Your task to perform on an android device: delete the emails in spam in the gmail app Image 0: 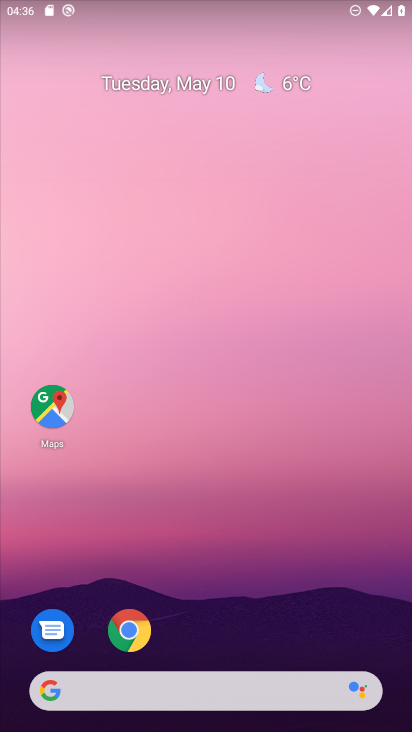
Step 0: drag from (228, 611) to (319, 14)
Your task to perform on an android device: delete the emails in spam in the gmail app Image 1: 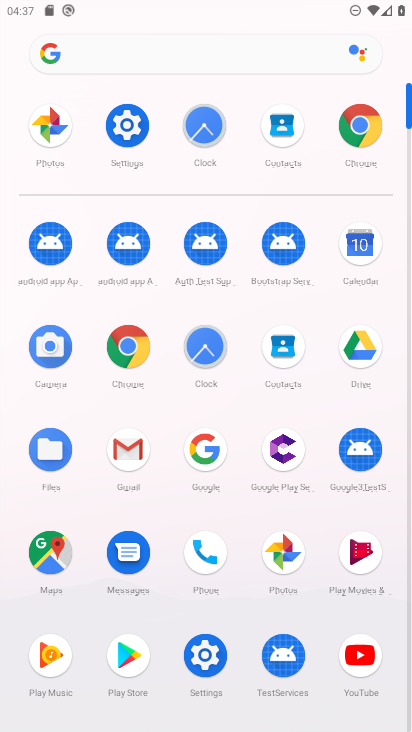
Step 1: click (117, 462)
Your task to perform on an android device: delete the emails in spam in the gmail app Image 2: 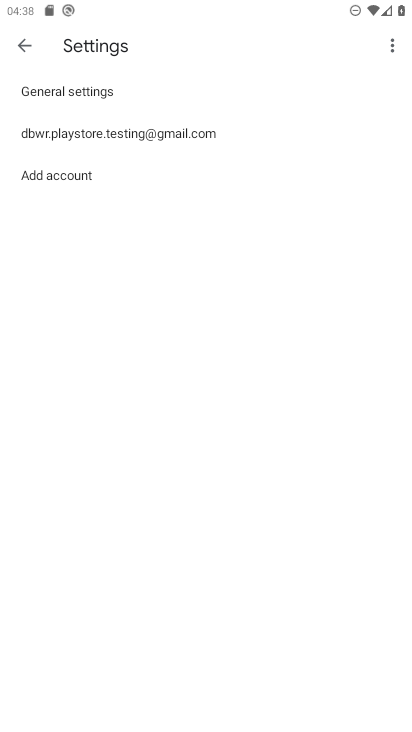
Step 2: click (16, 39)
Your task to perform on an android device: delete the emails in spam in the gmail app Image 3: 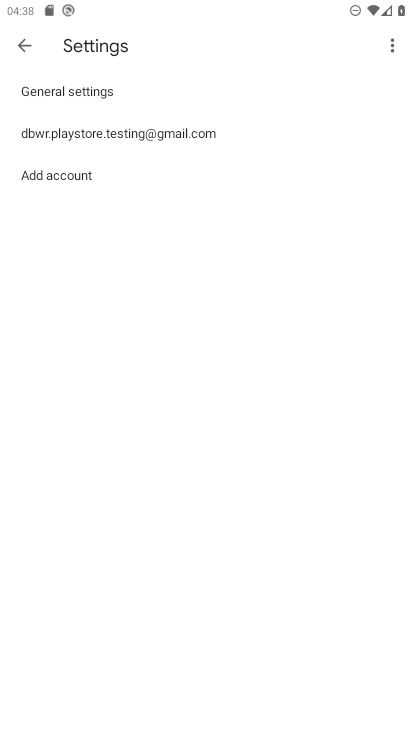
Step 3: click (50, 49)
Your task to perform on an android device: delete the emails in spam in the gmail app Image 4: 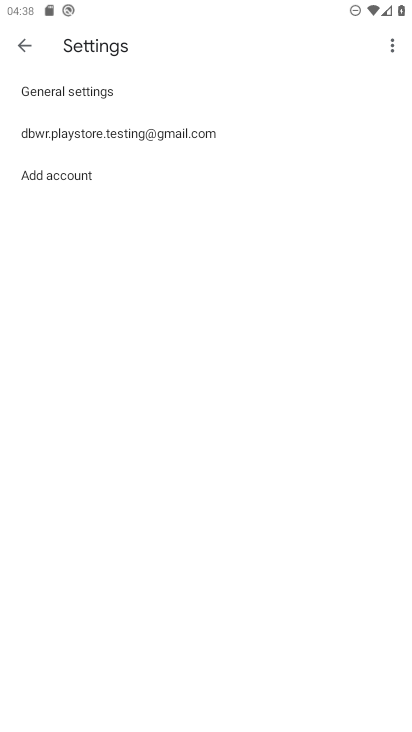
Step 4: click (21, 63)
Your task to perform on an android device: delete the emails in spam in the gmail app Image 5: 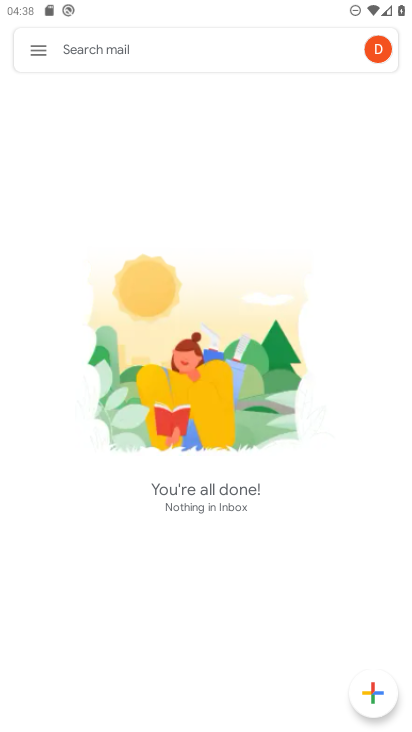
Step 5: click (41, 49)
Your task to perform on an android device: delete the emails in spam in the gmail app Image 6: 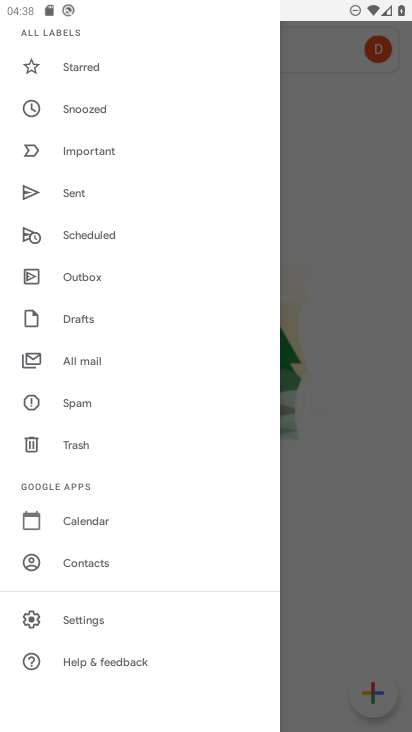
Step 6: click (112, 398)
Your task to perform on an android device: delete the emails in spam in the gmail app Image 7: 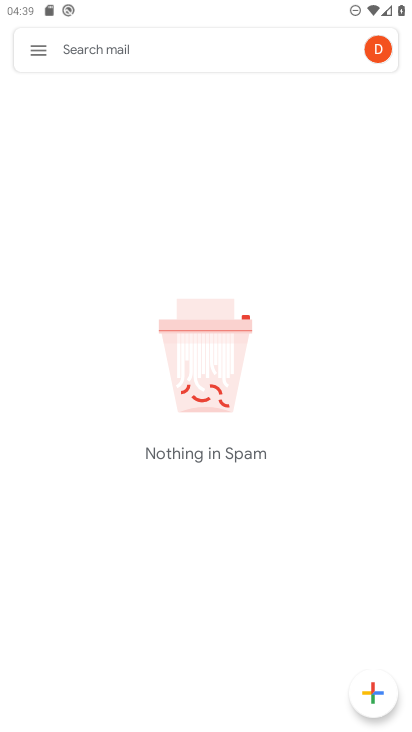
Step 7: task complete